Your task to perform on an android device: Open Google Maps and go to "Timeline" Image 0: 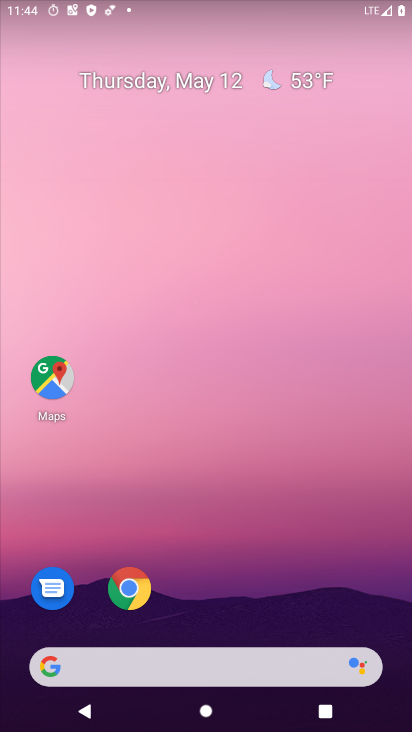
Step 0: click (55, 366)
Your task to perform on an android device: Open Google Maps and go to "Timeline" Image 1: 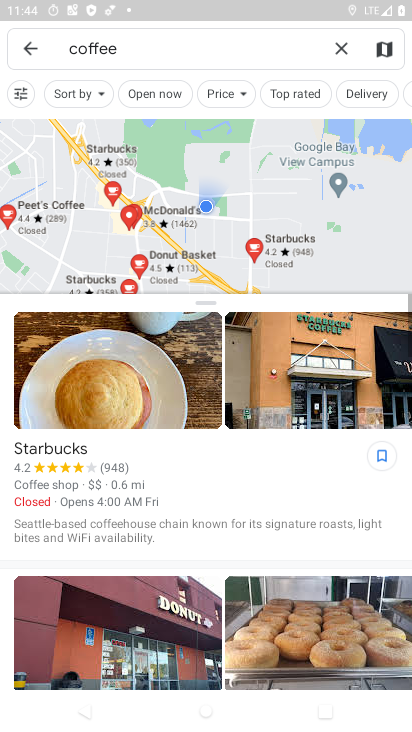
Step 1: click (163, 48)
Your task to perform on an android device: Open Google Maps and go to "Timeline" Image 2: 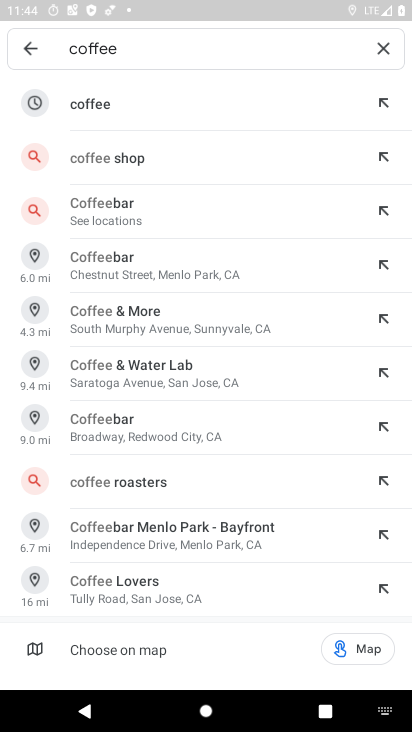
Step 2: click (384, 44)
Your task to perform on an android device: Open Google Maps and go to "Timeline" Image 3: 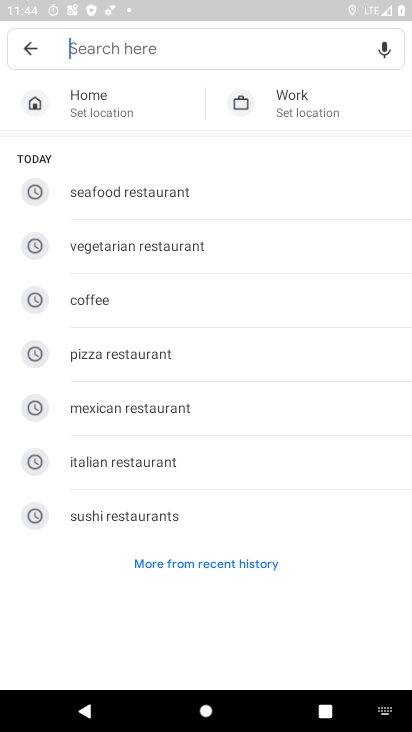
Step 3: type "timeline"
Your task to perform on an android device: Open Google Maps and go to "Timeline" Image 4: 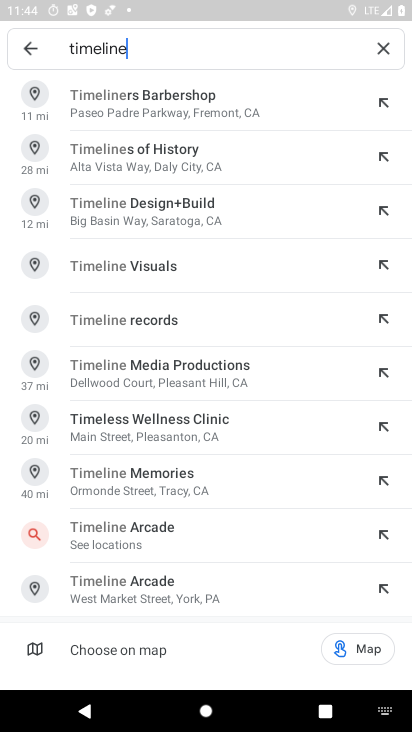
Step 4: click (35, 37)
Your task to perform on an android device: Open Google Maps and go to "Timeline" Image 5: 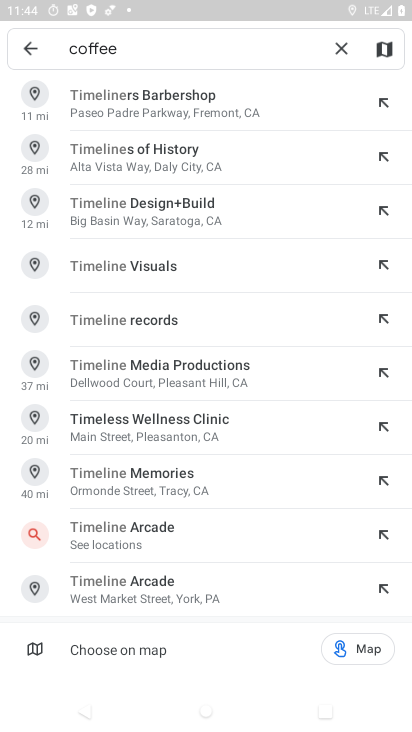
Step 5: click (34, 40)
Your task to perform on an android device: Open Google Maps and go to "Timeline" Image 6: 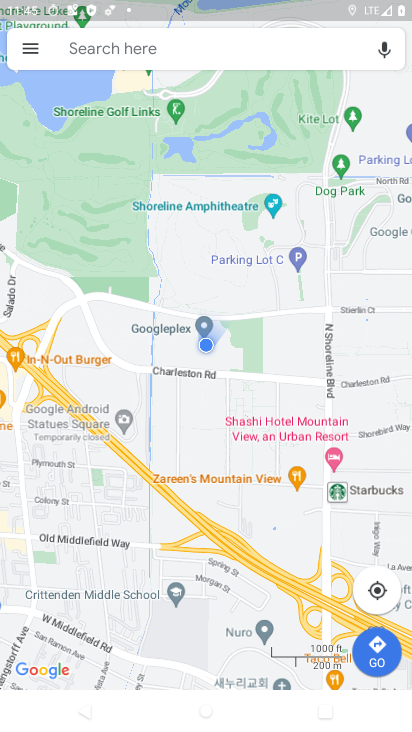
Step 6: click (34, 40)
Your task to perform on an android device: Open Google Maps and go to "Timeline" Image 7: 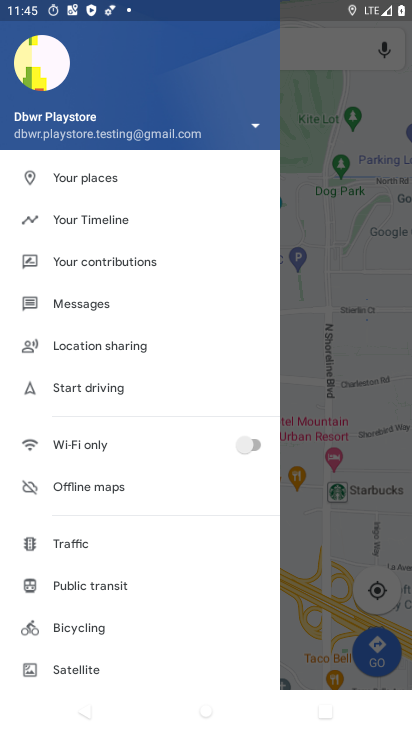
Step 7: click (130, 222)
Your task to perform on an android device: Open Google Maps and go to "Timeline" Image 8: 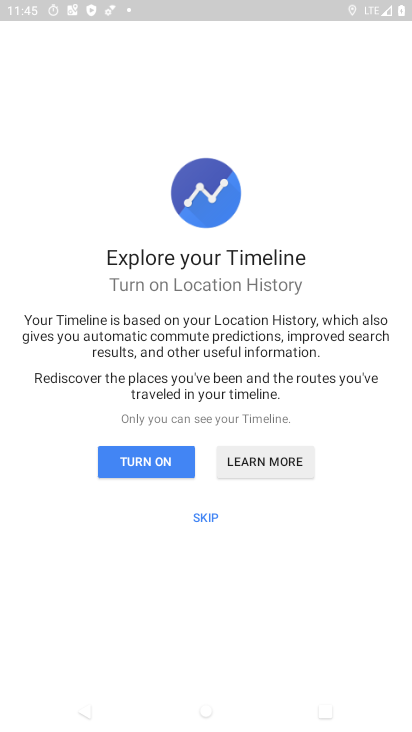
Step 8: click (141, 465)
Your task to perform on an android device: Open Google Maps and go to "Timeline" Image 9: 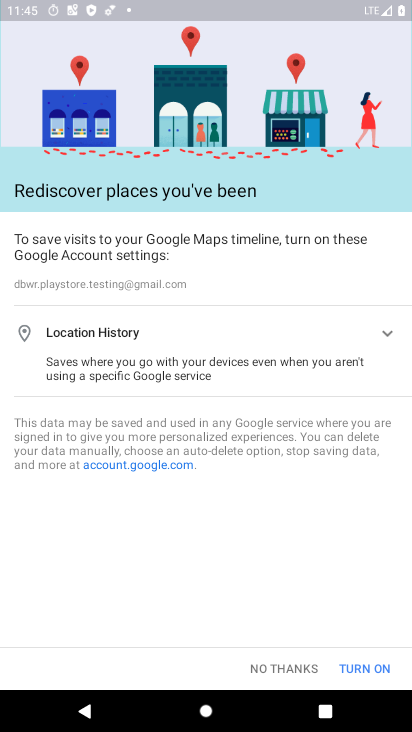
Step 9: click (284, 660)
Your task to perform on an android device: Open Google Maps and go to "Timeline" Image 10: 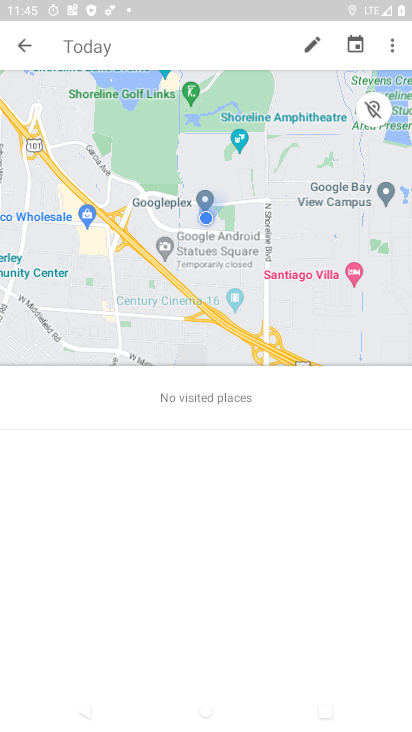
Step 10: task complete